Your task to perform on an android device: change the upload size in google photos Image 0: 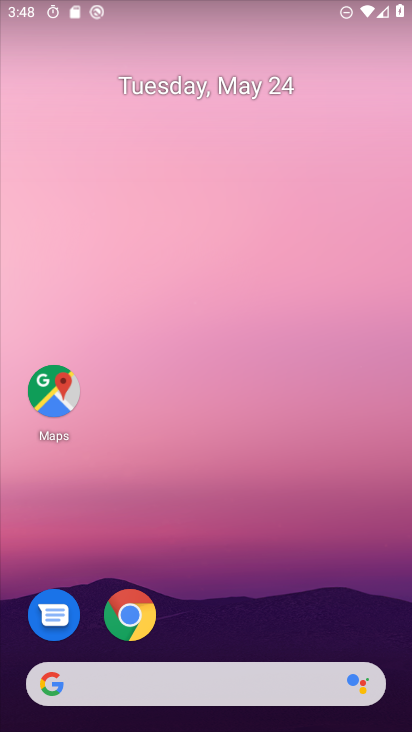
Step 0: drag from (227, 676) to (329, 122)
Your task to perform on an android device: change the upload size in google photos Image 1: 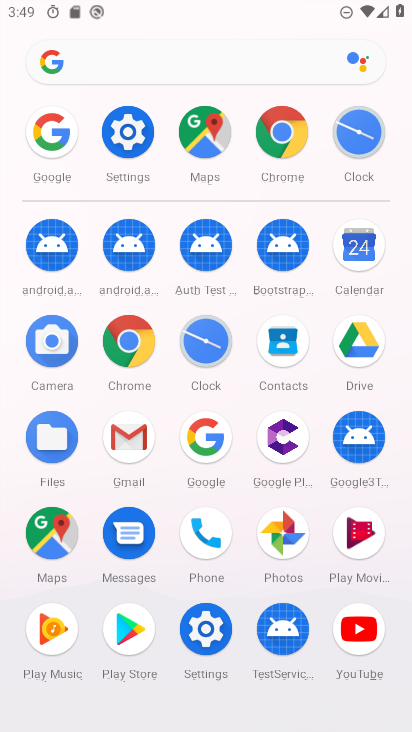
Step 1: click (283, 543)
Your task to perform on an android device: change the upload size in google photos Image 2: 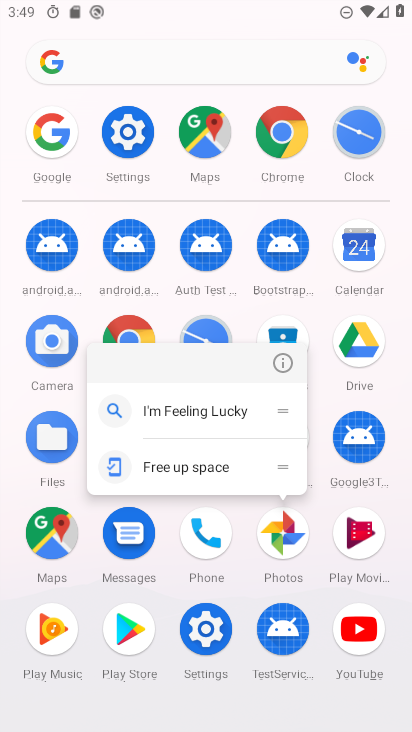
Step 2: click (285, 562)
Your task to perform on an android device: change the upload size in google photos Image 3: 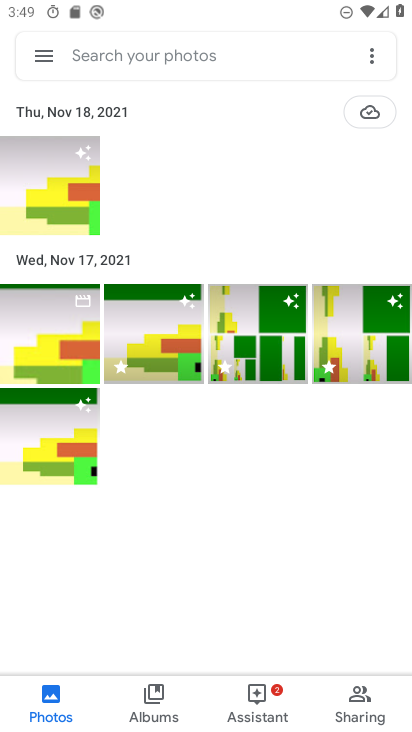
Step 3: click (43, 55)
Your task to perform on an android device: change the upload size in google photos Image 4: 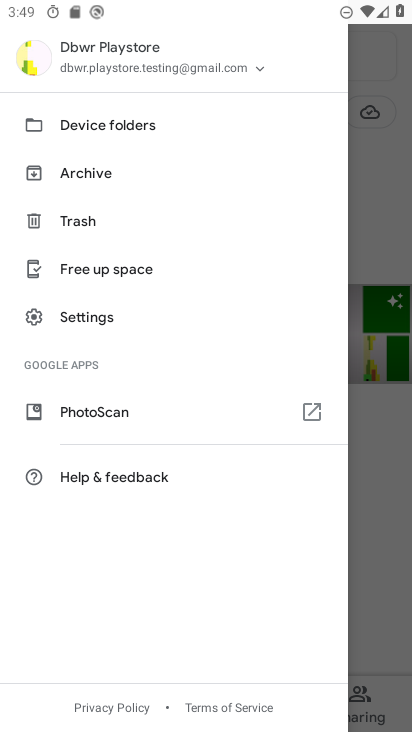
Step 4: click (121, 316)
Your task to perform on an android device: change the upload size in google photos Image 5: 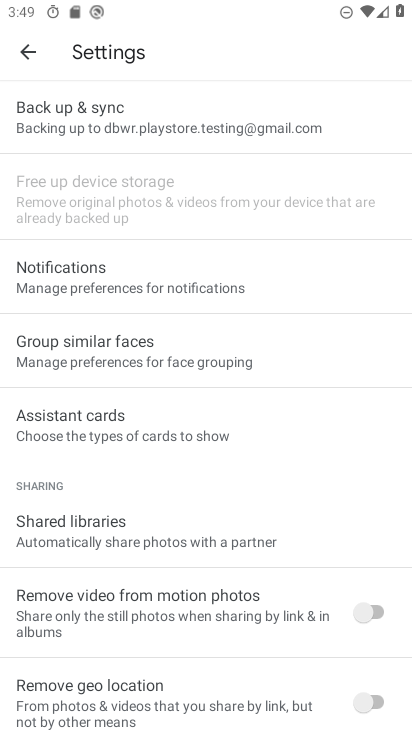
Step 5: click (158, 126)
Your task to perform on an android device: change the upload size in google photos Image 6: 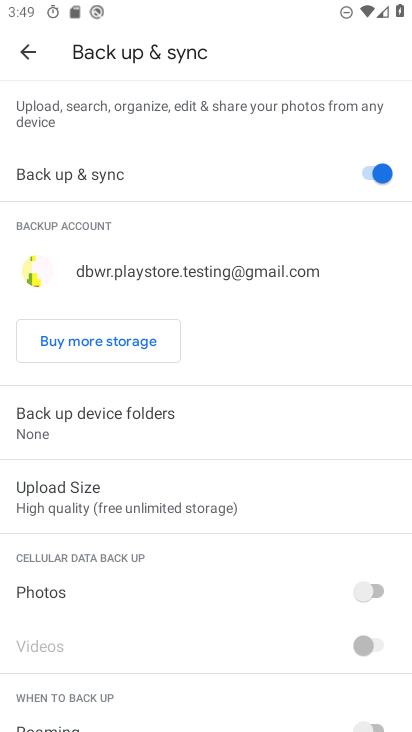
Step 6: click (125, 501)
Your task to perform on an android device: change the upload size in google photos Image 7: 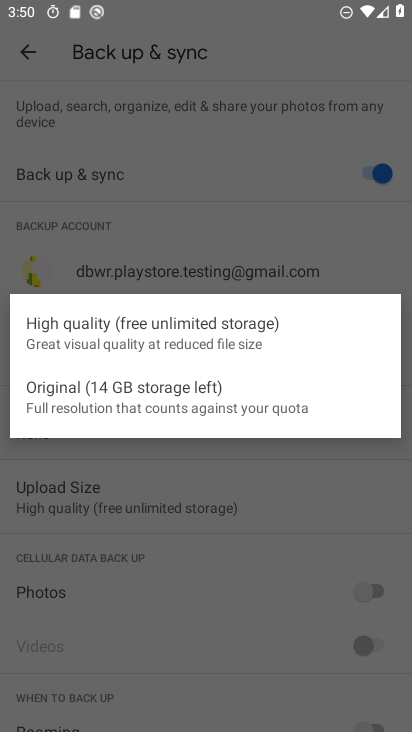
Step 7: click (176, 387)
Your task to perform on an android device: change the upload size in google photos Image 8: 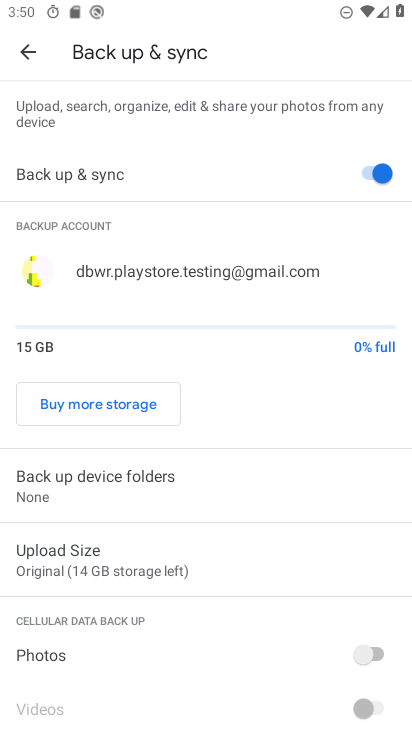
Step 8: task complete